Your task to perform on an android device: turn on priority inbox in the gmail app Image 0: 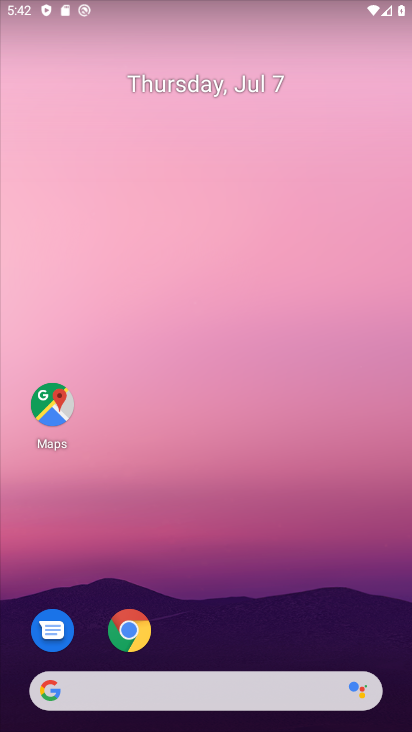
Step 0: drag from (189, 512) to (242, 18)
Your task to perform on an android device: turn on priority inbox in the gmail app Image 1: 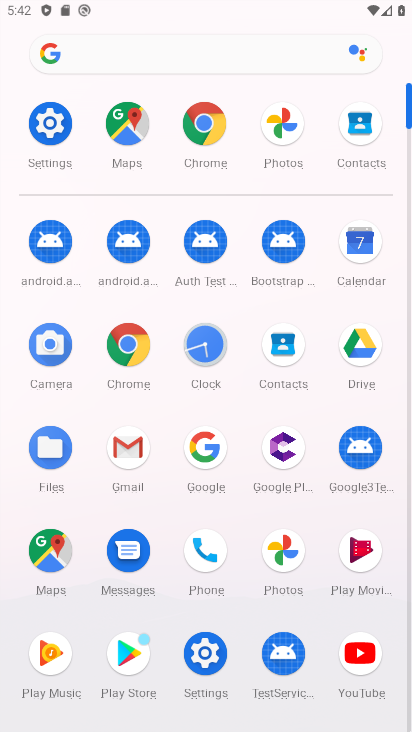
Step 1: click (129, 435)
Your task to perform on an android device: turn on priority inbox in the gmail app Image 2: 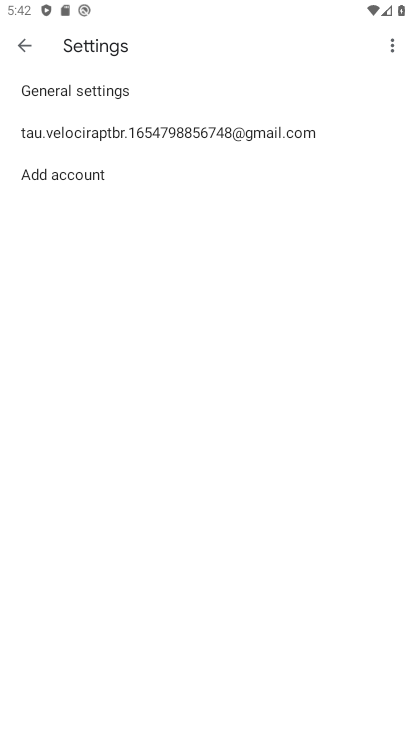
Step 2: click (154, 138)
Your task to perform on an android device: turn on priority inbox in the gmail app Image 3: 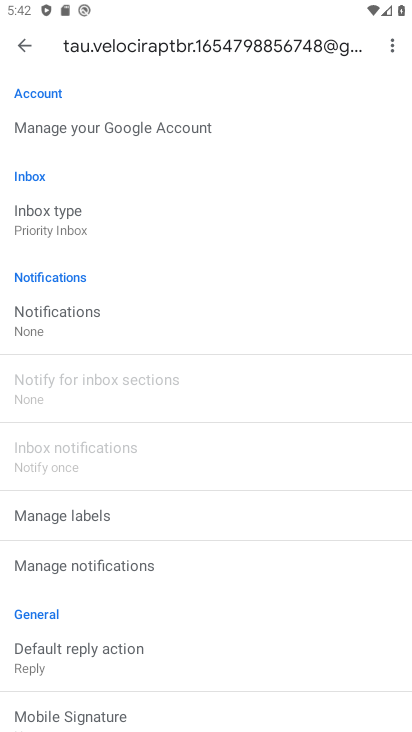
Step 3: task complete